Your task to perform on an android device: Open the stopwatch Image 0: 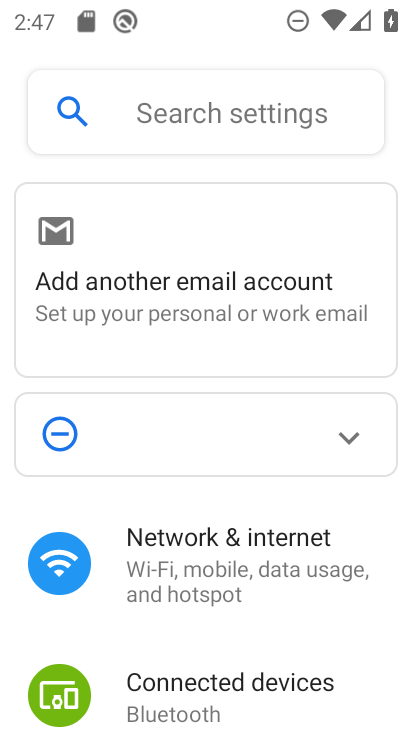
Step 0: press home button
Your task to perform on an android device: Open the stopwatch Image 1: 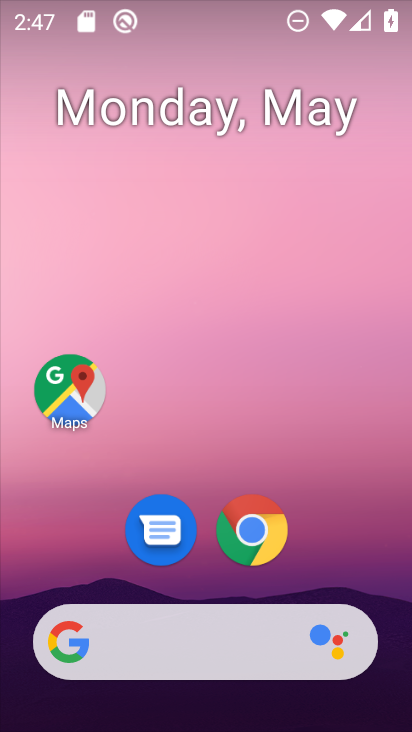
Step 1: drag from (201, 576) to (127, 49)
Your task to perform on an android device: Open the stopwatch Image 2: 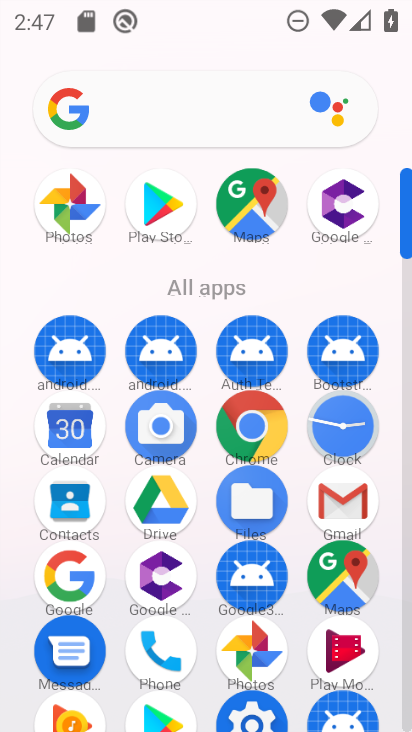
Step 2: click (364, 436)
Your task to perform on an android device: Open the stopwatch Image 3: 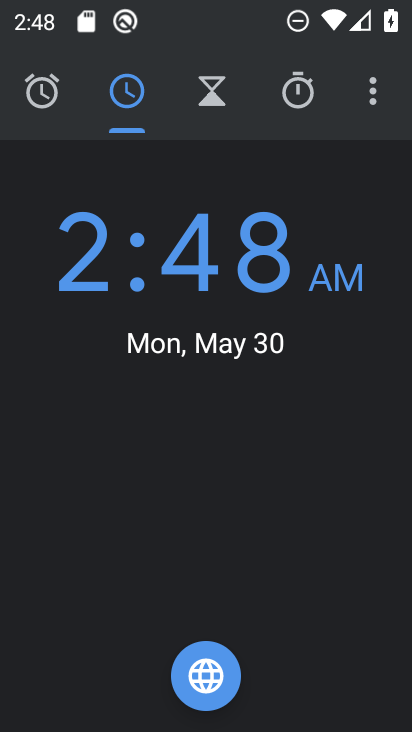
Step 3: click (325, 79)
Your task to perform on an android device: Open the stopwatch Image 4: 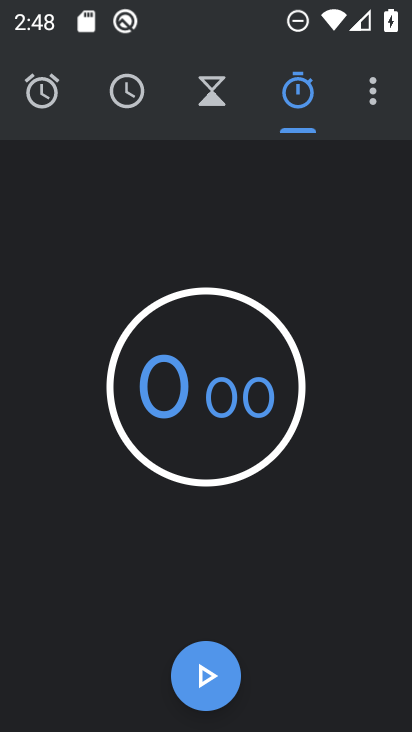
Step 4: task complete